Your task to perform on an android device: allow cookies in the chrome app Image 0: 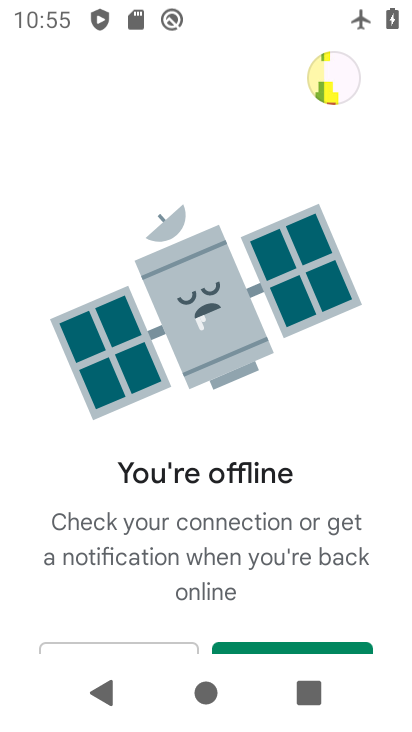
Step 0: press home button
Your task to perform on an android device: allow cookies in the chrome app Image 1: 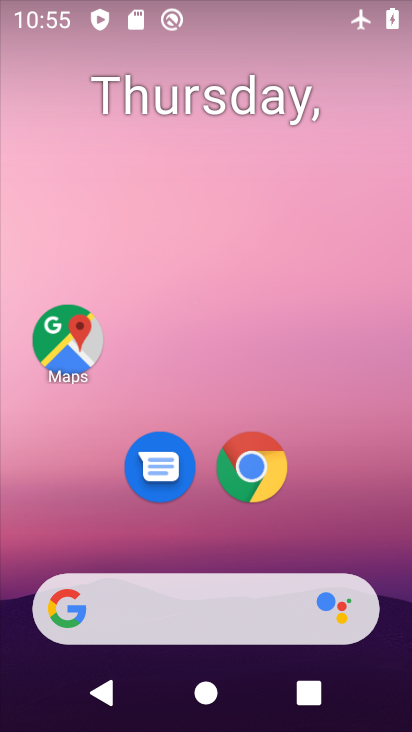
Step 1: click (257, 479)
Your task to perform on an android device: allow cookies in the chrome app Image 2: 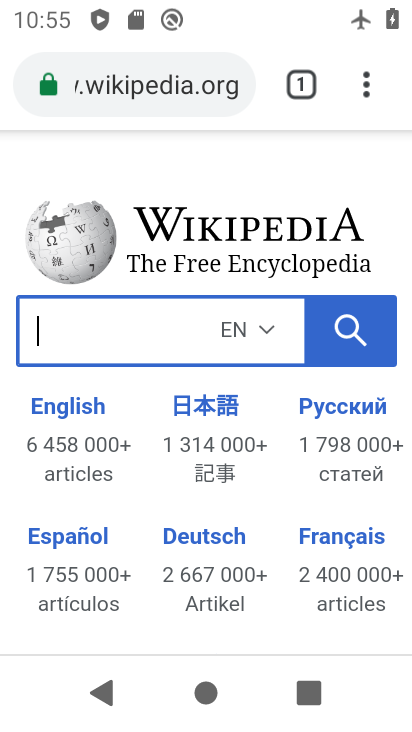
Step 2: click (368, 86)
Your task to perform on an android device: allow cookies in the chrome app Image 3: 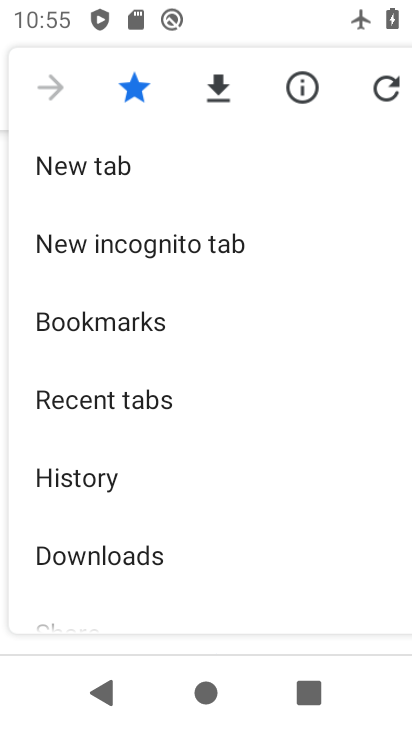
Step 3: drag from (209, 539) to (187, 217)
Your task to perform on an android device: allow cookies in the chrome app Image 4: 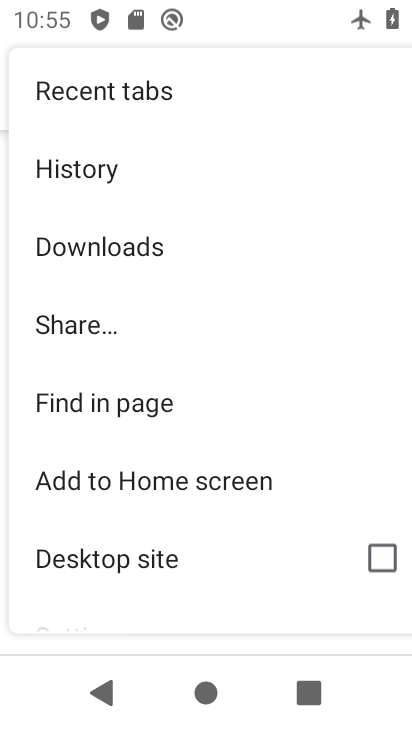
Step 4: drag from (264, 542) to (220, 172)
Your task to perform on an android device: allow cookies in the chrome app Image 5: 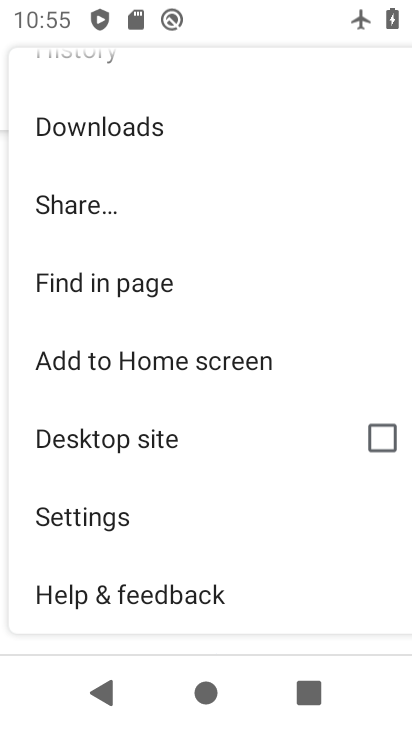
Step 5: click (88, 517)
Your task to perform on an android device: allow cookies in the chrome app Image 6: 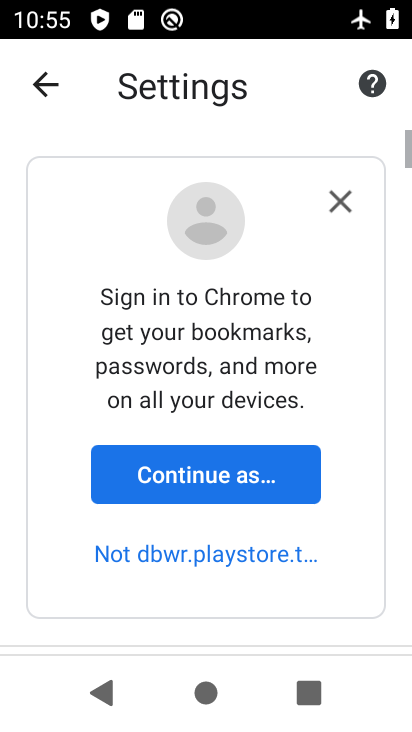
Step 6: drag from (172, 578) to (176, 41)
Your task to perform on an android device: allow cookies in the chrome app Image 7: 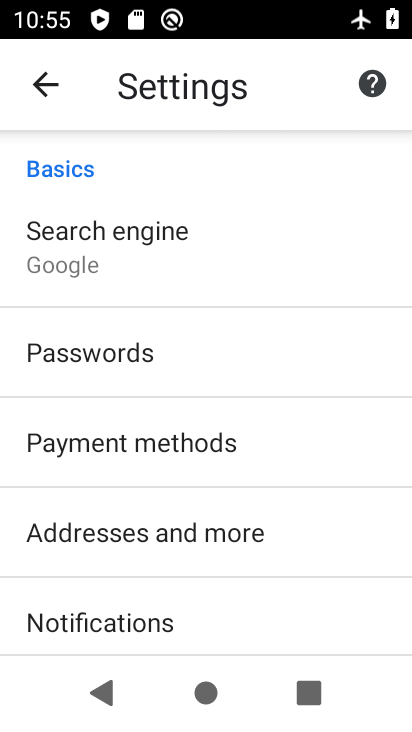
Step 7: drag from (234, 567) to (213, 119)
Your task to perform on an android device: allow cookies in the chrome app Image 8: 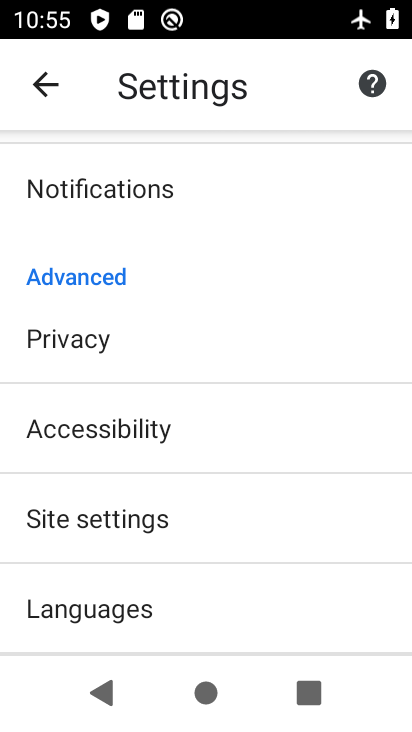
Step 8: click (132, 525)
Your task to perform on an android device: allow cookies in the chrome app Image 9: 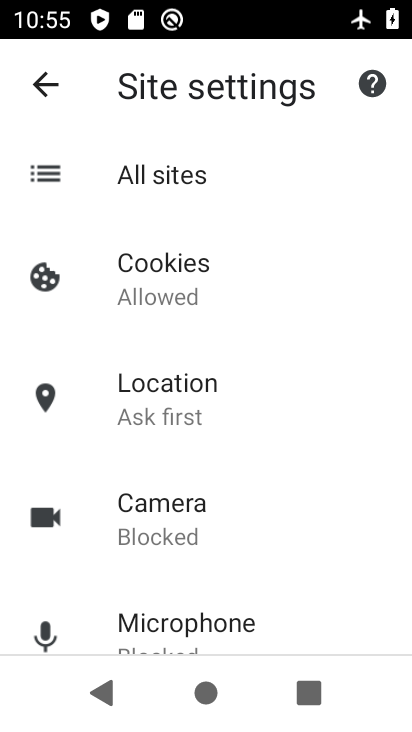
Step 9: click (179, 283)
Your task to perform on an android device: allow cookies in the chrome app Image 10: 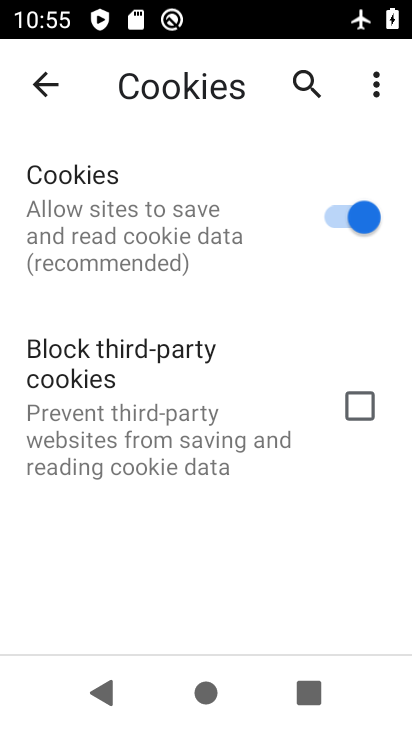
Step 10: task complete